Your task to perform on an android device: Go to Android settings Image 0: 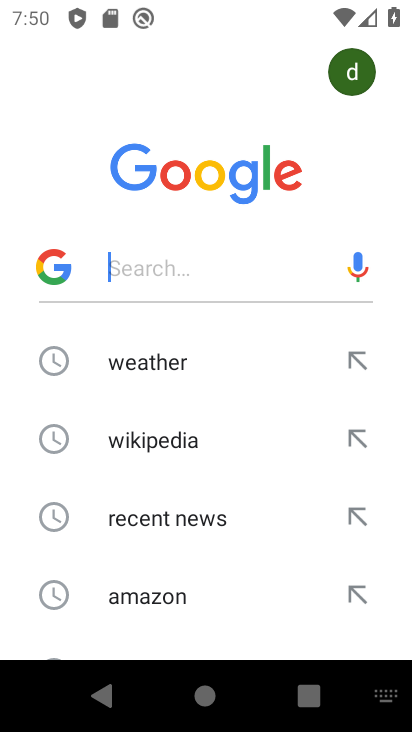
Step 0: press home button
Your task to perform on an android device: Go to Android settings Image 1: 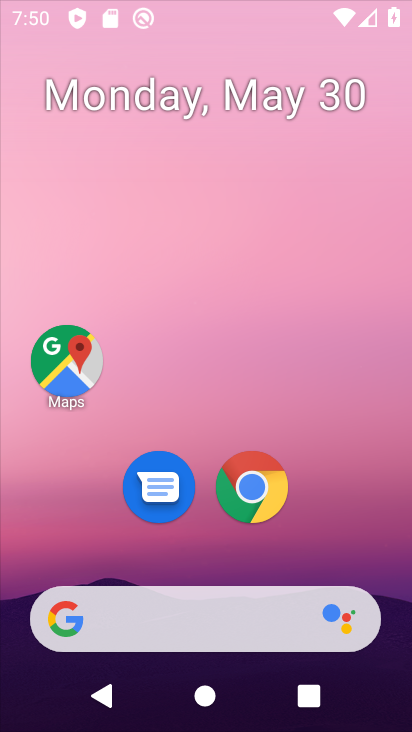
Step 1: drag from (240, 629) to (238, 187)
Your task to perform on an android device: Go to Android settings Image 2: 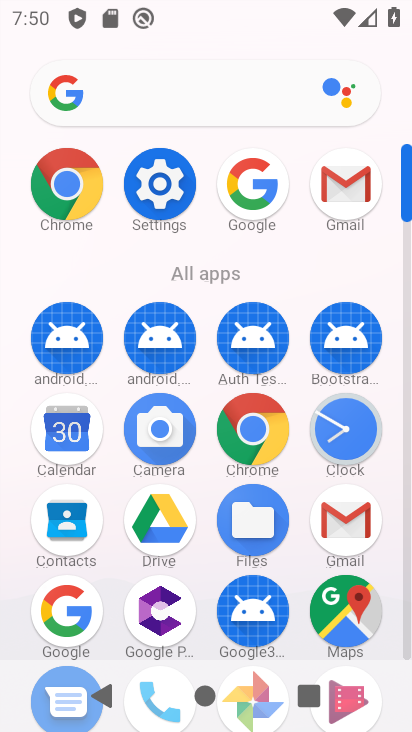
Step 2: click (164, 181)
Your task to perform on an android device: Go to Android settings Image 3: 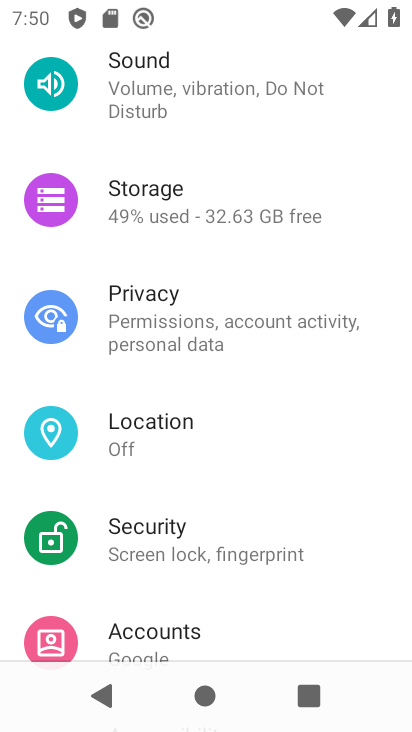
Step 3: task complete